Your task to perform on an android device: turn on bluetooth scan Image 0: 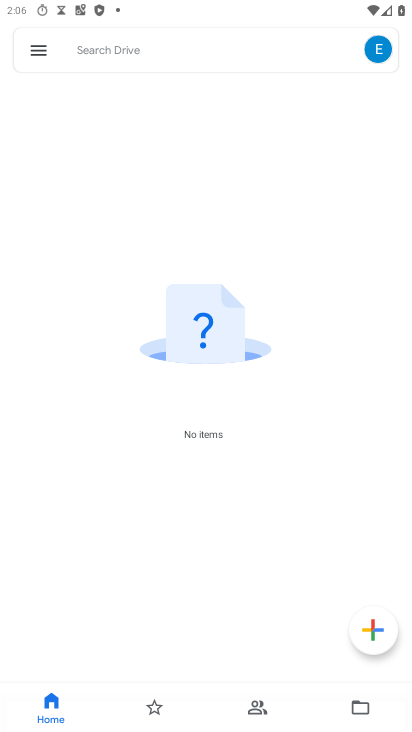
Step 0: press home button
Your task to perform on an android device: turn on bluetooth scan Image 1: 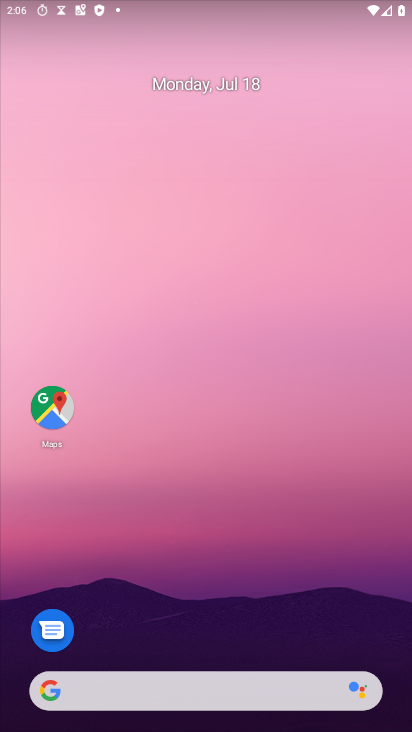
Step 1: drag from (226, 606) to (265, 19)
Your task to perform on an android device: turn on bluetooth scan Image 2: 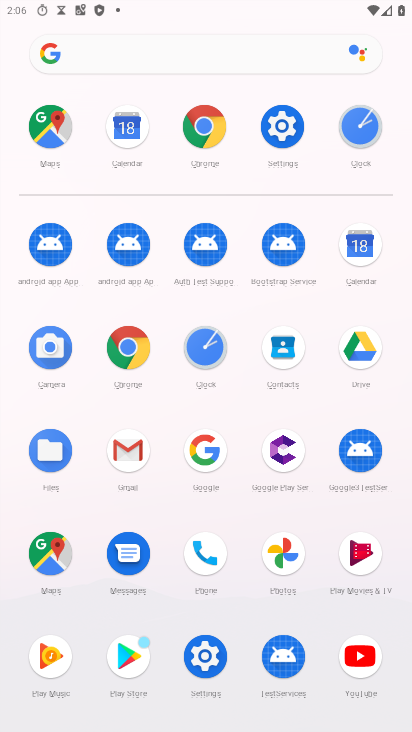
Step 2: click (280, 115)
Your task to perform on an android device: turn on bluetooth scan Image 3: 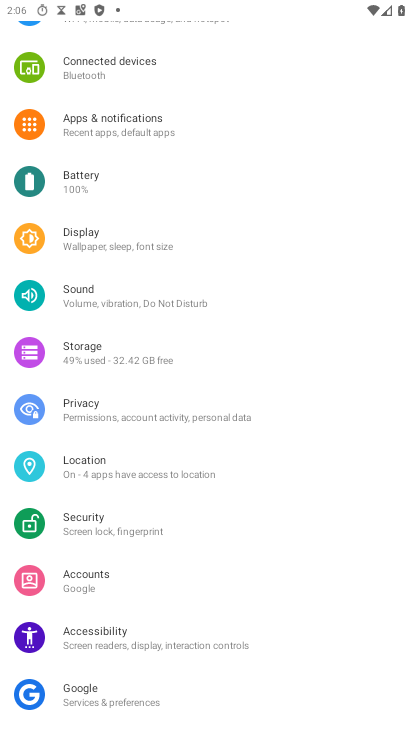
Step 3: click (134, 464)
Your task to perform on an android device: turn on bluetooth scan Image 4: 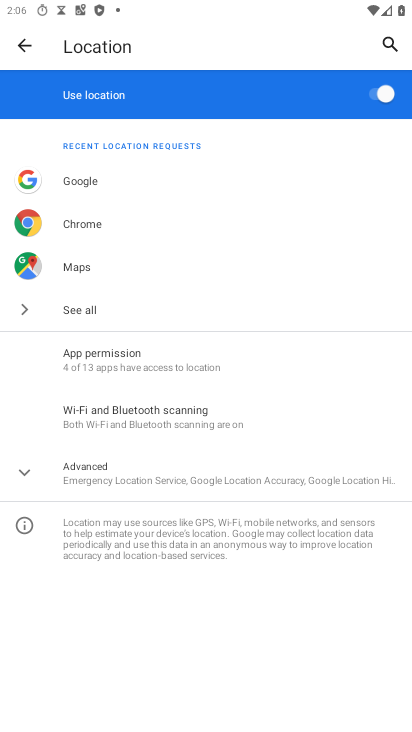
Step 4: click (210, 417)
Your task to perform on an android device: turn on bluetooth scan Image 5: 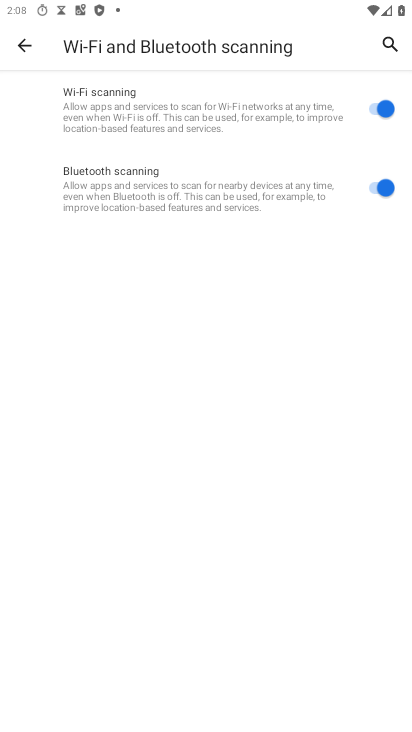
Step 5: task complete